Your task to perform on an android device: Open Maps and search for coffee Image 0: 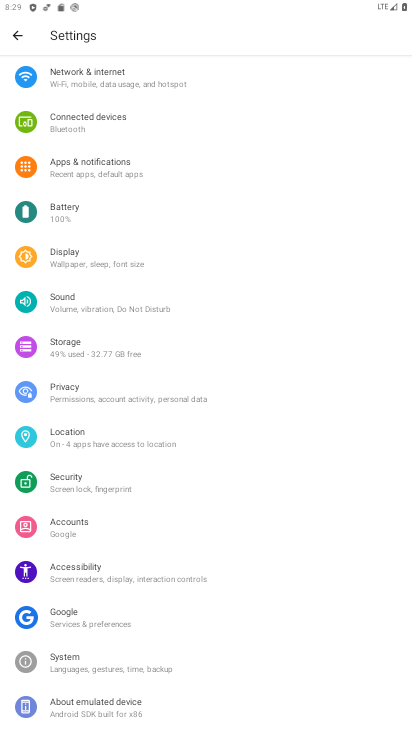
Step 0: press home button
Your task to perform on an android device: Open Maps and search for coffee Image 1: 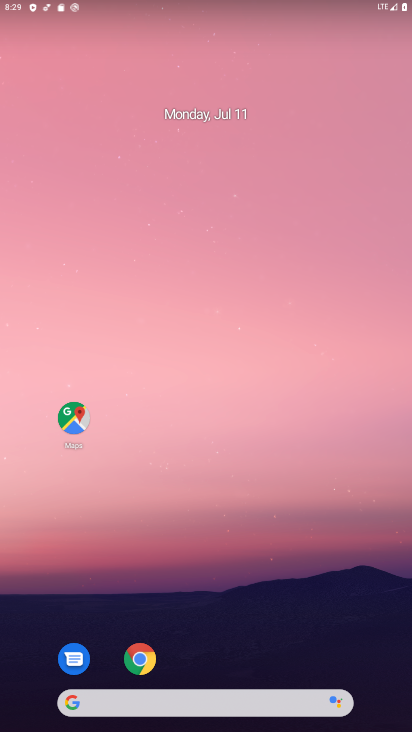
Step 1: click (79, 423)
Your task to perform on an android device: Open Maps and search for coffee Image 2: 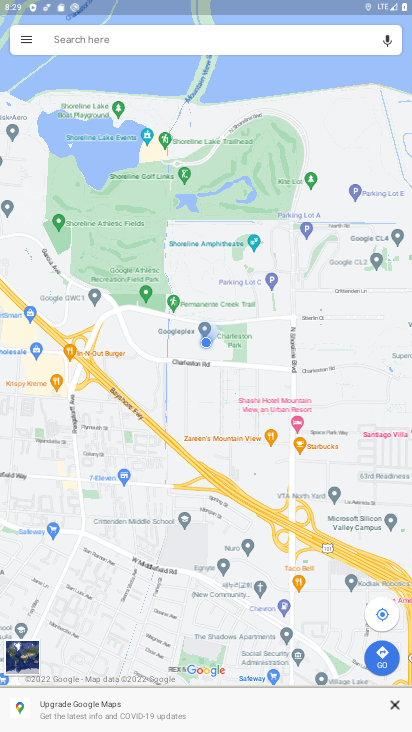
Step 2: click (233, 35)
Your task to perform on an android device: Open Maps and search for coffee Image 3: 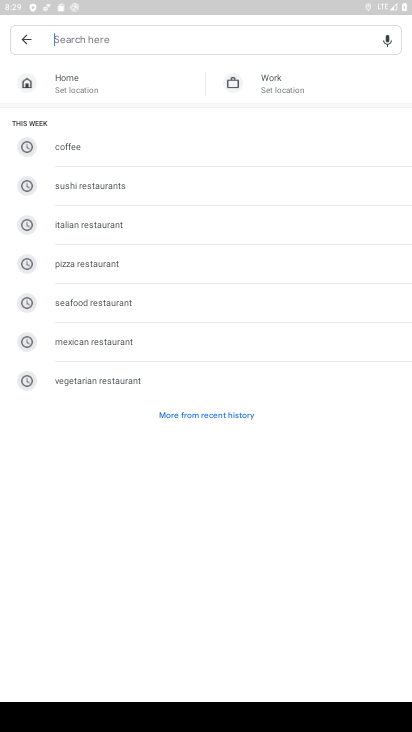
Step 3: type "coffee"
Your task to perform on an android device: Open Maps and search for coffee Image 4: 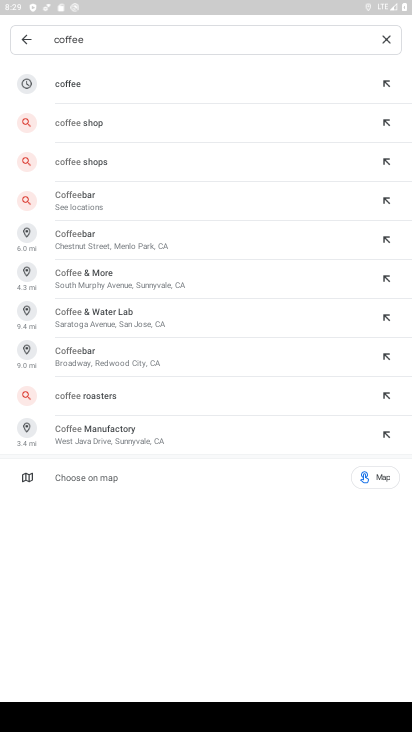
Step 4: click (185, 86)
Your task to perform on an android device: Open Maps and search for coffee Image 5: 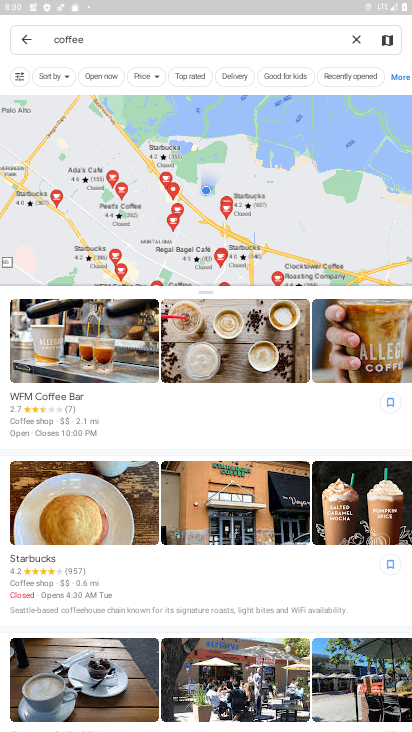
Step 5: task complete